Your task to perform on an android device: change the clock display to analog Image 0: 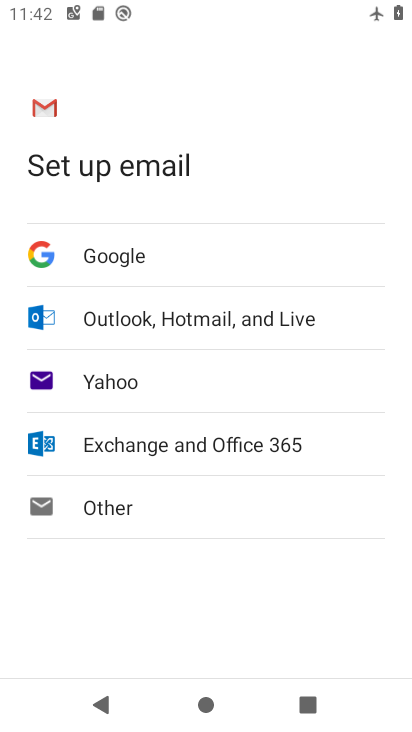
Step 0: press home button
Your task to perform on an android device: change the clock display to analog Image 1: 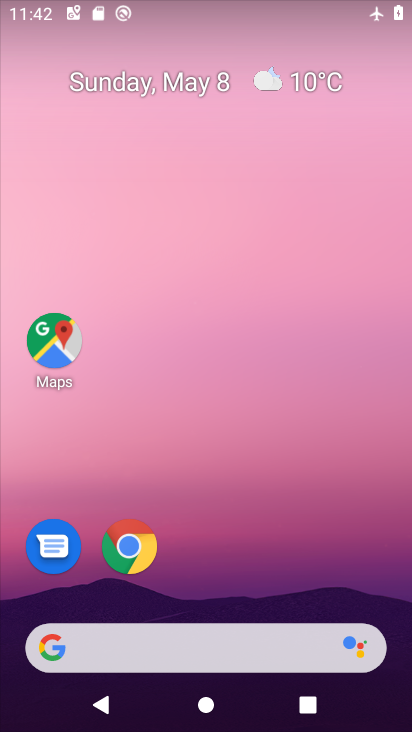
Step 1: drag from (375, 605) to (391, 23)
Your task to perform on an android device: change the clock display to analog Image 2: 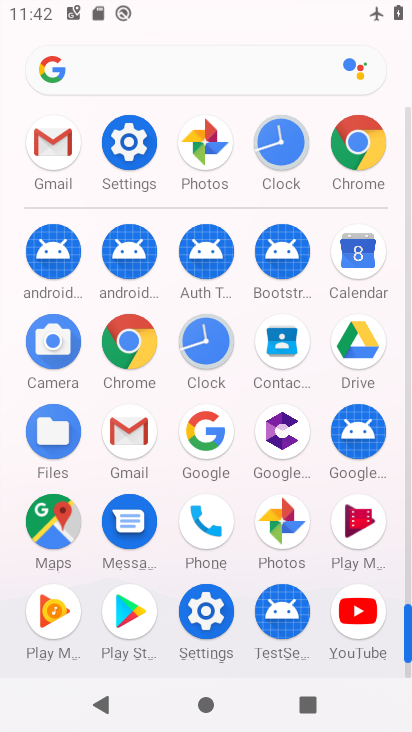
Step 2: click (408, 586)
Your task to perform on an android device: change the clock display to analog Image 3: 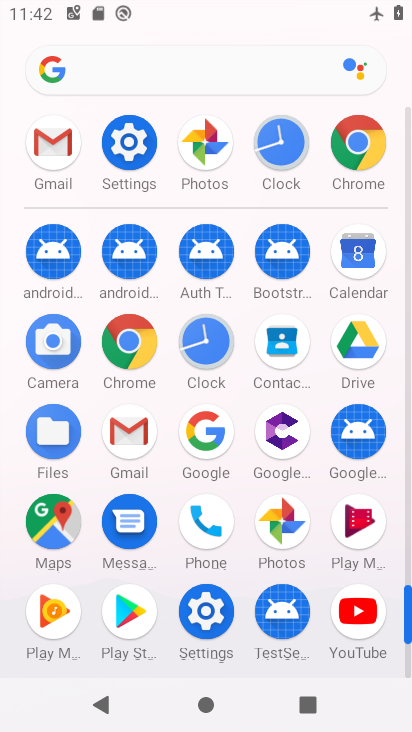
Step 3: click (204, 336)
Your task to perform on an android device: change the clock display to analog Image 4: 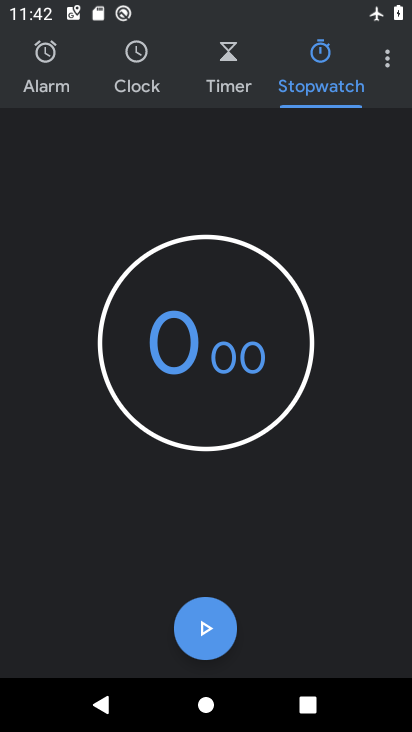
Step 4: click (383, 56)
Your task to perform on an android device: change the clock display to analog Image 5: 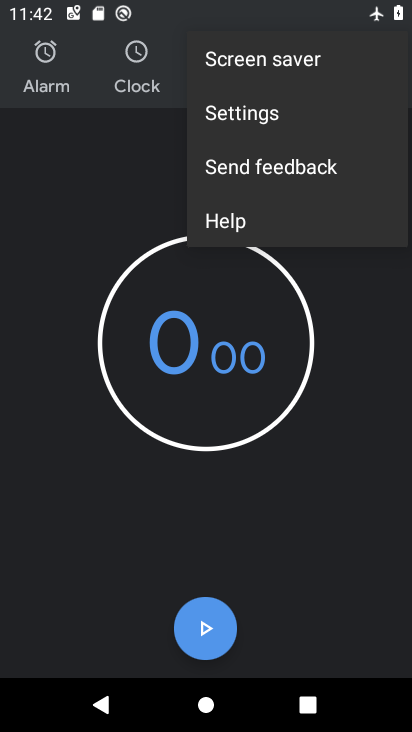
Step 5: click (231, 116)
Your task to perform on an android device: change the clock display to analog Image 6: 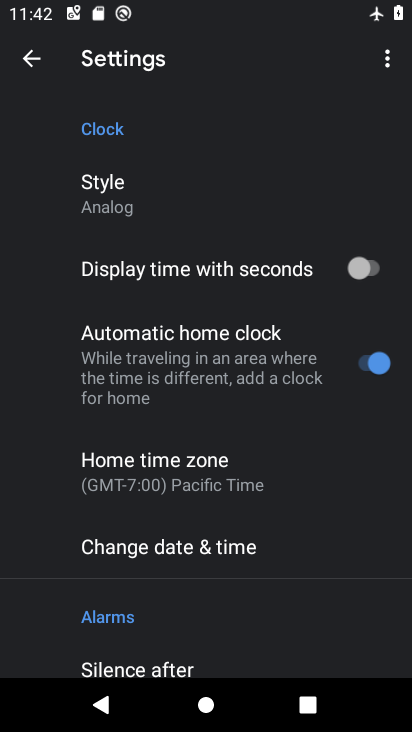
Step 6: task complete